Your task to perform on an android device: Search for asus rog on walmart.com, select the first entry, and add it to the cart. Image 0: 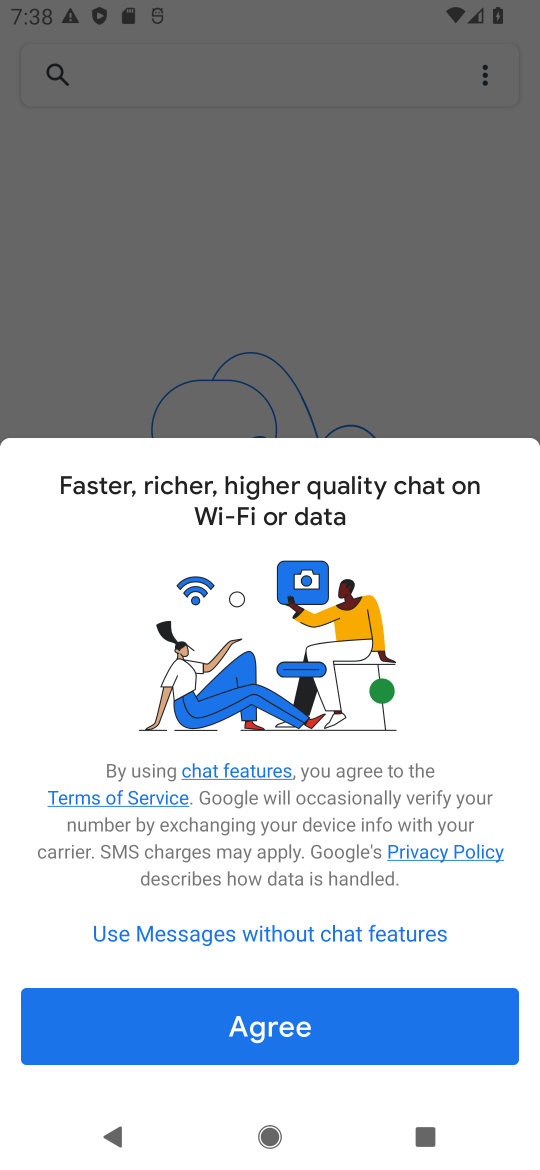
Step 0: press home button
Your task to perform on an android device: Search for asus rog on walmart.com, select the first entry, and add it to the cart. Image 1: 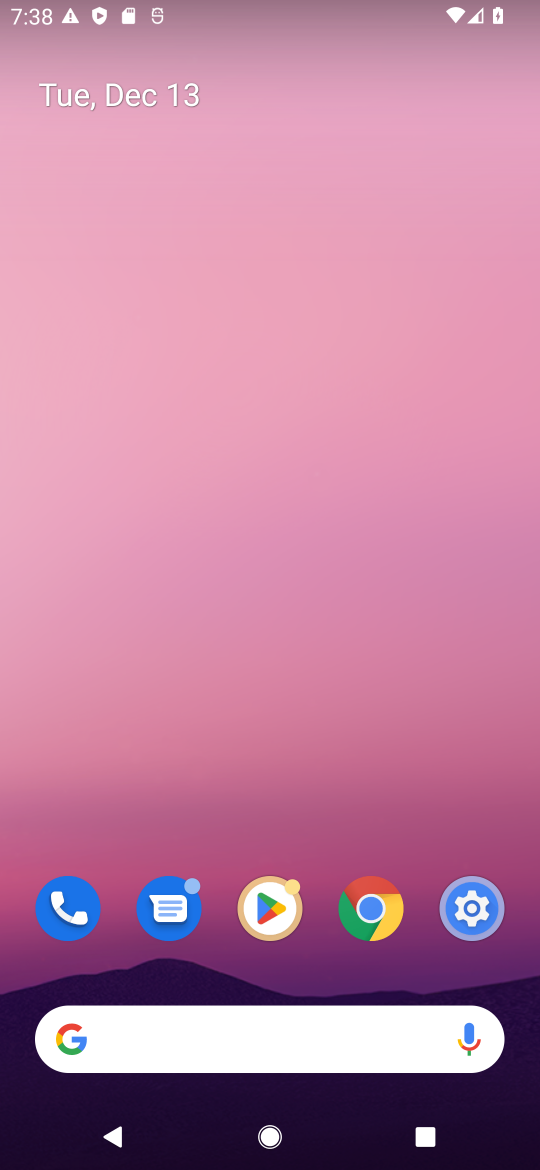
Step 1: click (110, 1030)
Your task to perform on an android device: Search for asus rog on walmart.com, select the first entry, and add it to the cart. Image 2: 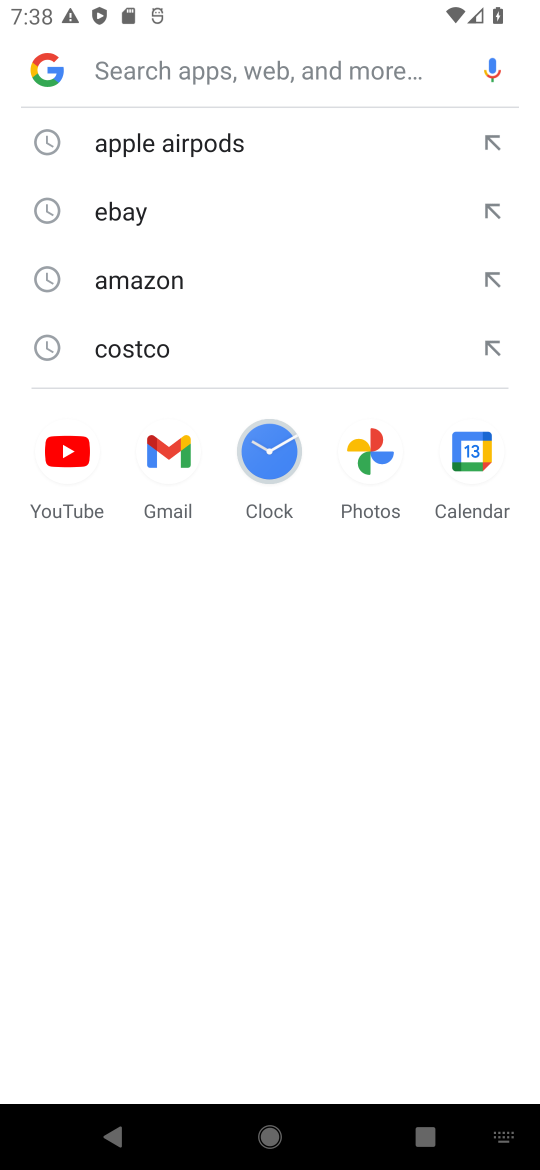
Step 2: type "walmart.com"
Your task to perform on an android device: Search for asus rog on walmart.com, select the first entry, and add it to the cart. Image 3: 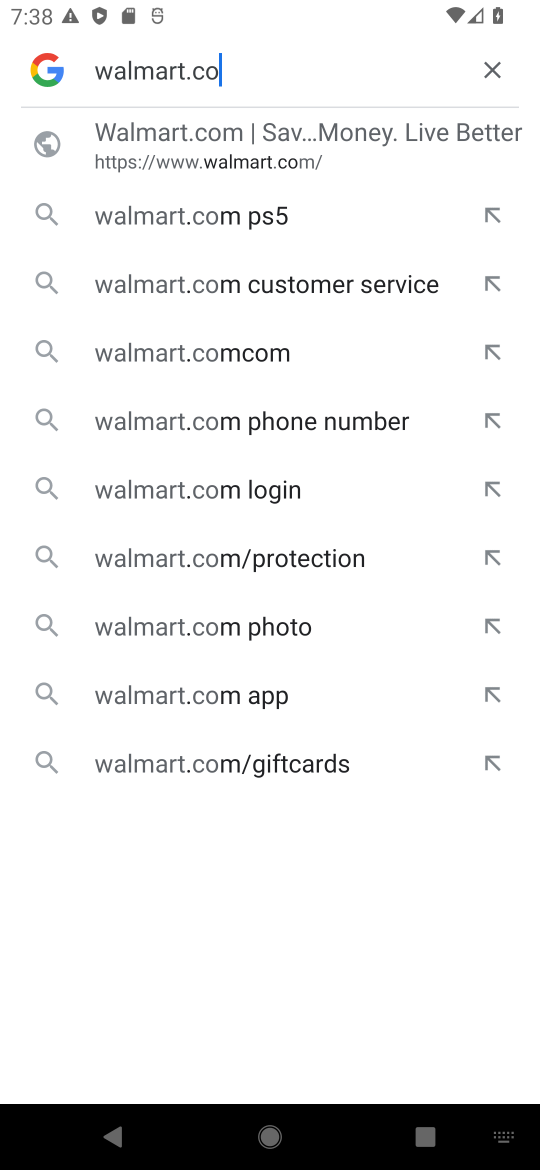
Step 3: press enter
Your task to perform on an android device: Search for asus rog on walmart.com, select the first entry, and add it to the cart. Image 4: 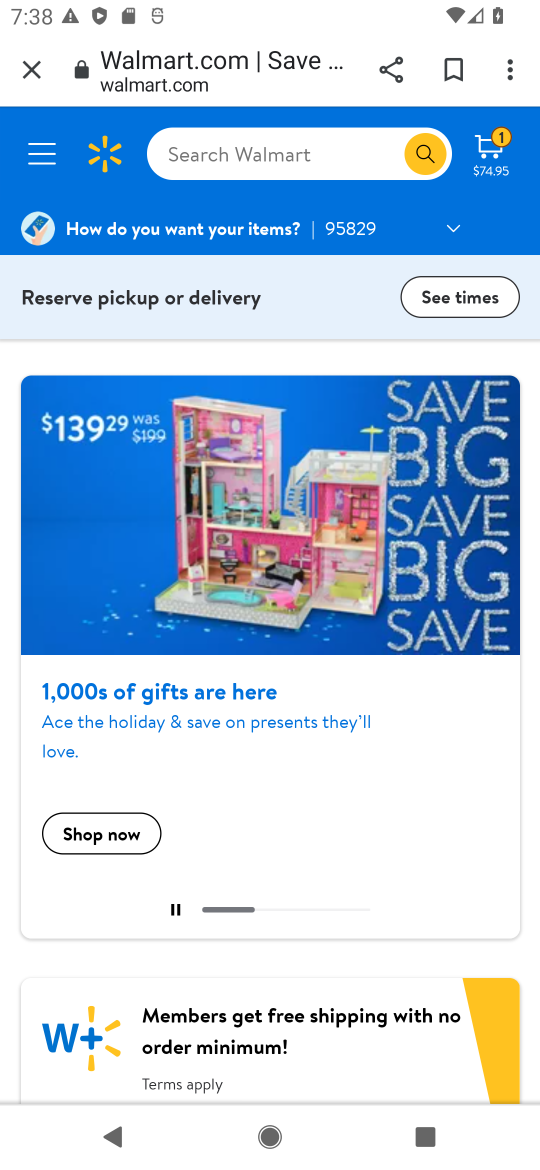
Step 4: click (186, 152)
Your task to perform on an android device: Search for asus rog on walmart.com, select the first entry, and add it to the cart. Image 5: 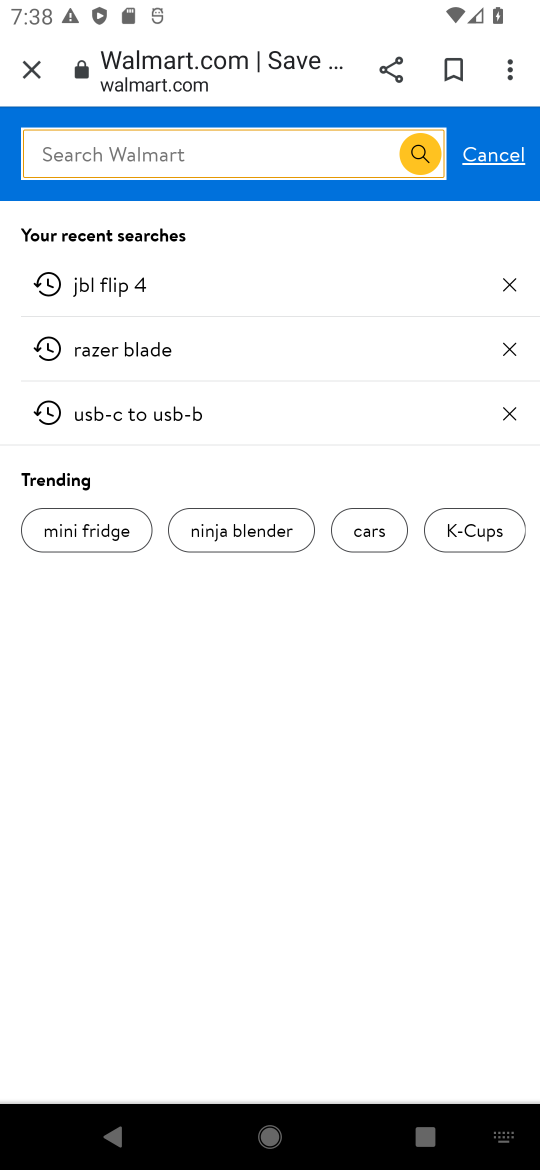
Step 5: type " asus rog"
Your task to perform on an android device: Search for asus rog on walmart.com, select the first entry, and add it to the cart. Image 6: 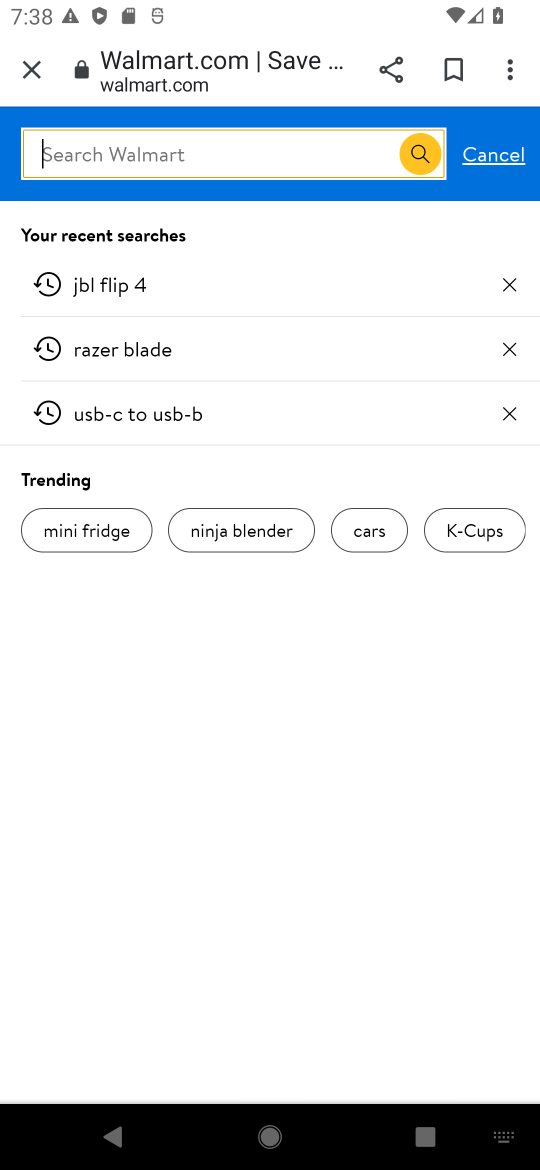
Step 6: press enter
Your task to perform on an android device: Search for asus rog on walmart.com, select the first entry, and add it to the cart. Image 7: 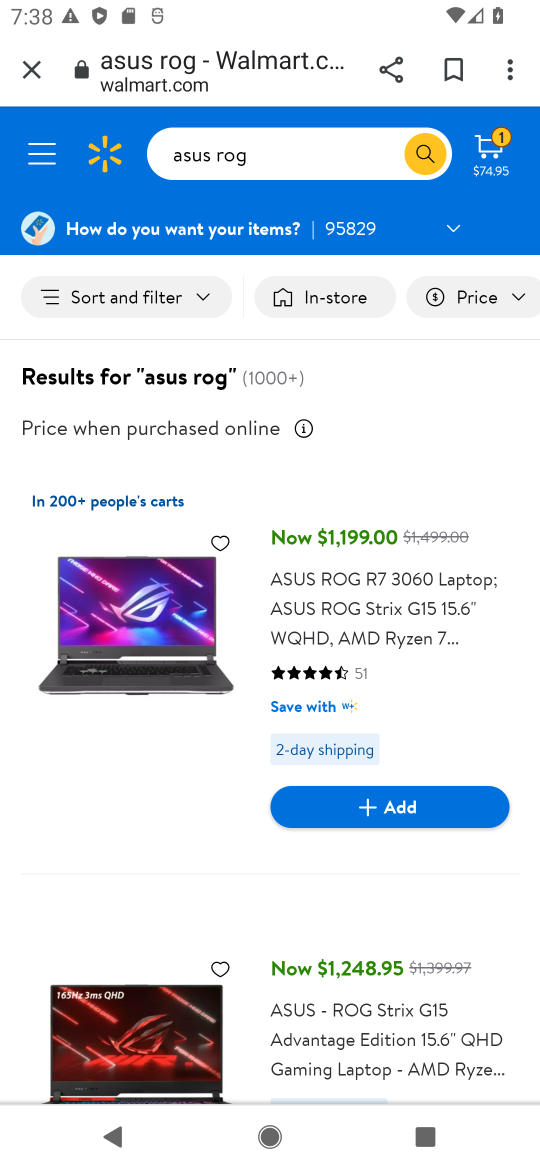
Step 7: click (409, 806)
Your task to perform on an android device: Search for asus rog on walmart.com, select the first entry, and add it to the cart. Image 8: 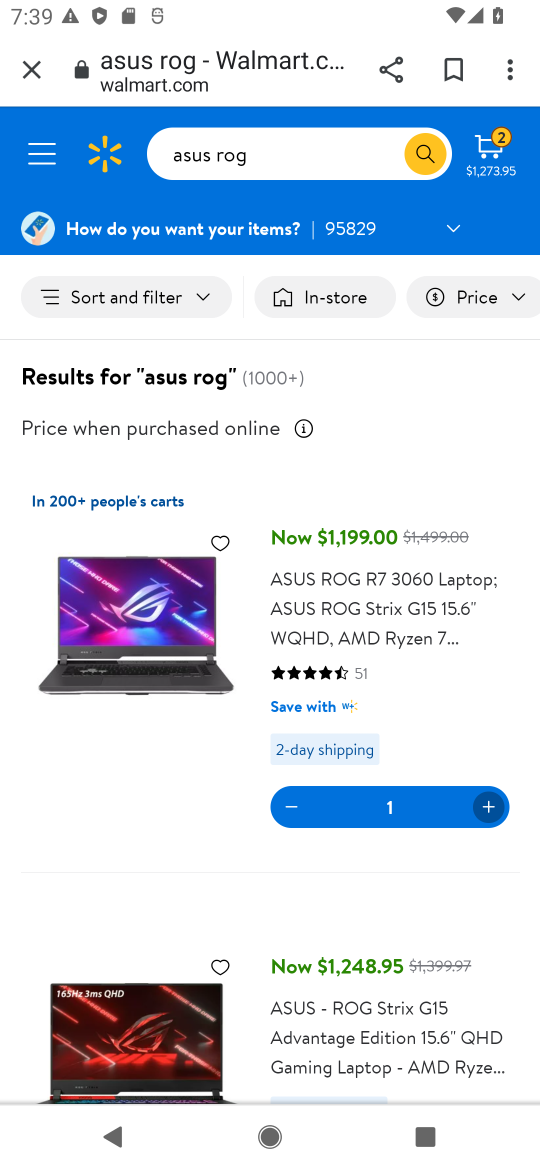
Step 8: task complete